Your task to perform on an android device: add a contact Image 0: 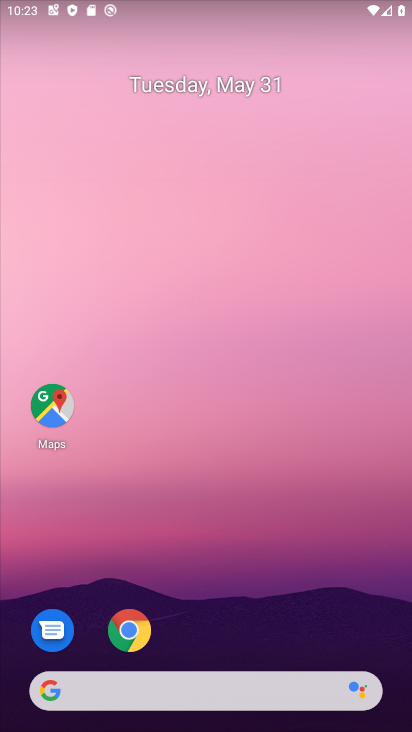
Step 0: press home button
Your task to perform on an android device: add a contact Image 1: 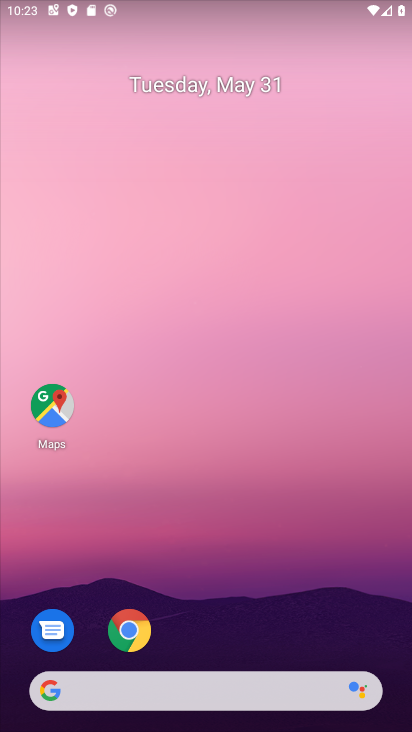
Step 1: drag from (268, 560) to (268, 135)
Your task to perform on an android device: add a contact Image 2: 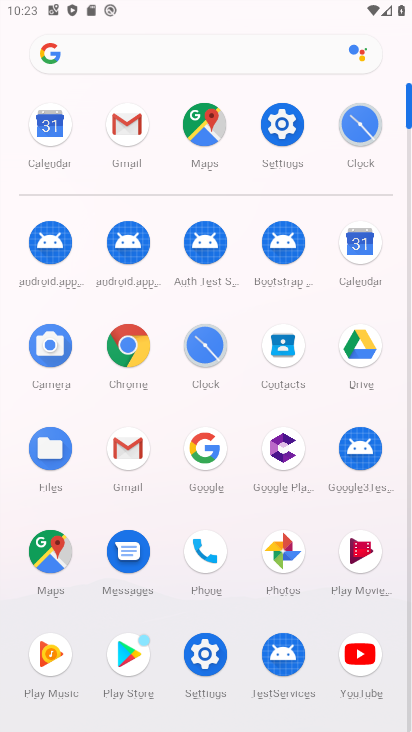
Step 2: click (285, 337)
Your task to perform on an android device: add a contact Image 3: 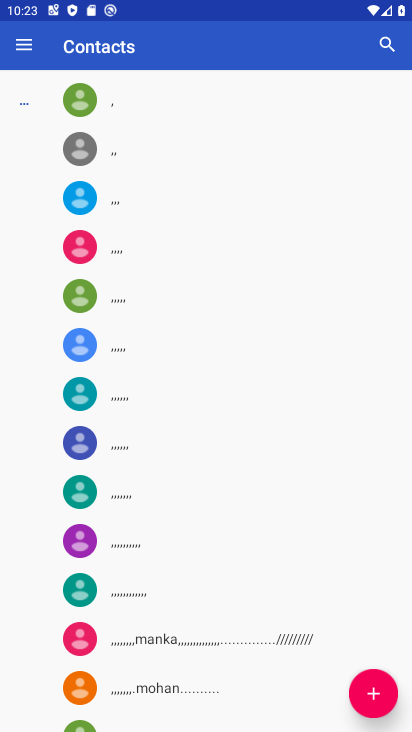
Step 3: click (371, 702)
Your task to perform on an android device: add a contact Image 4: 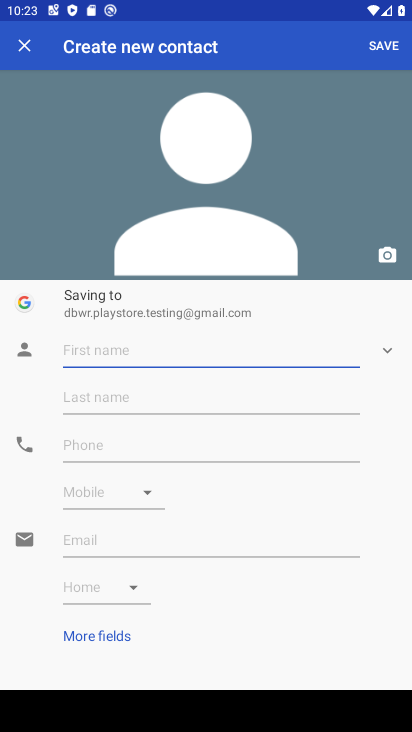
Step 4: click (148, 352)
Your task to perform on an android device: add a contact Image 5: 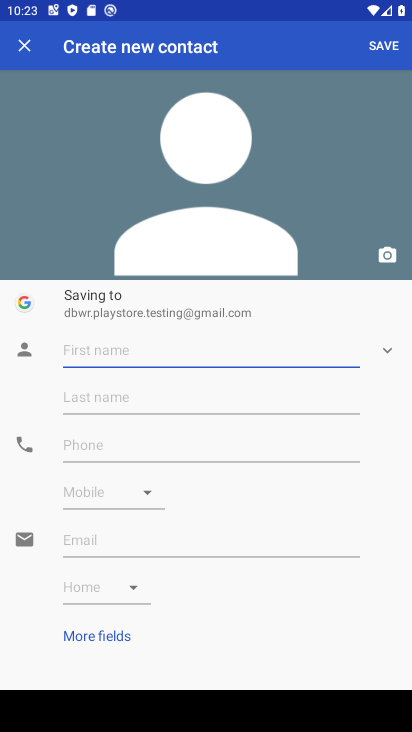
Step 5: click (138, 346)
Your task to perform on an android device: add a contact Image 6: 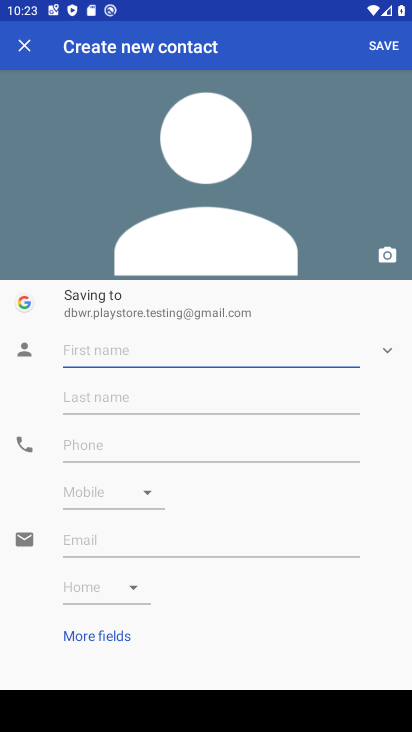
Step 6: type "vbcgccbv"
Your task to perform on an android device: add a contact Image 7: 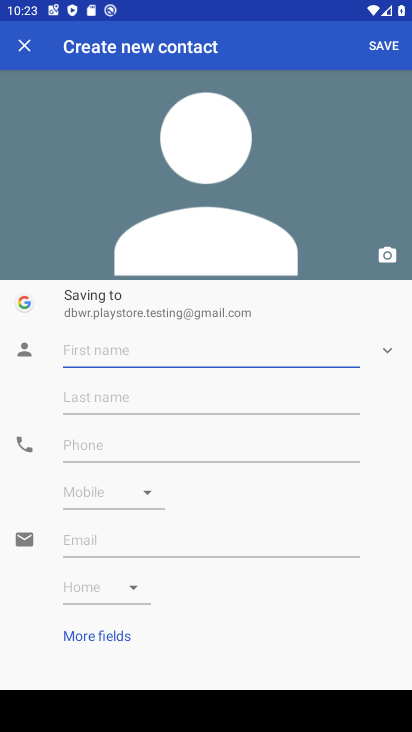
Step 7: click (194, 350)
Your task to perform on an android device: add a contact Image 8: 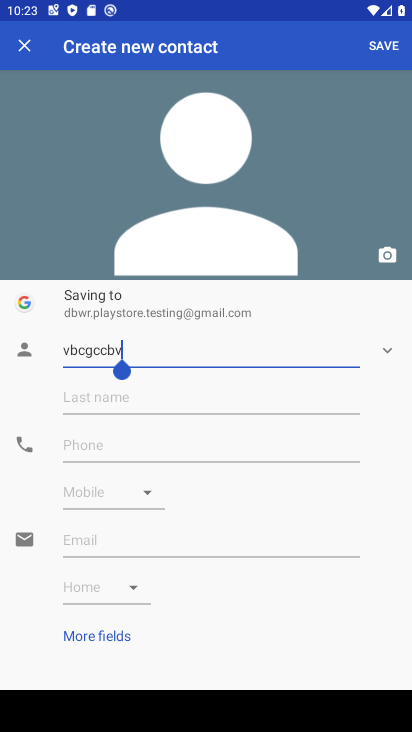
Step 8: click (110, 446)
Your task to perform on an android device: add a contact Image 9: 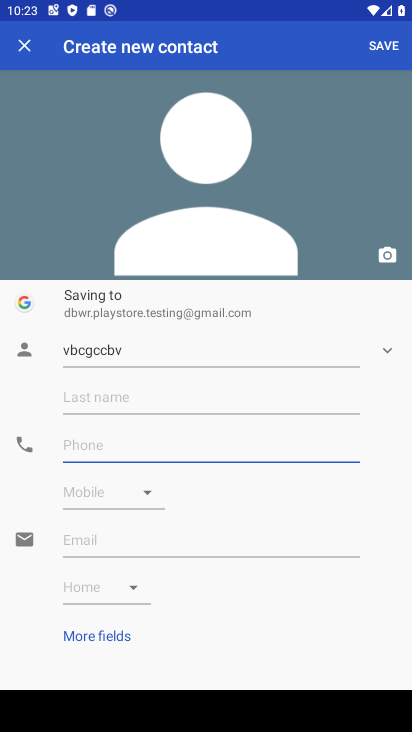
Step 9: type "665543333"
Your task to perform on an android device: add a contact Image 10: 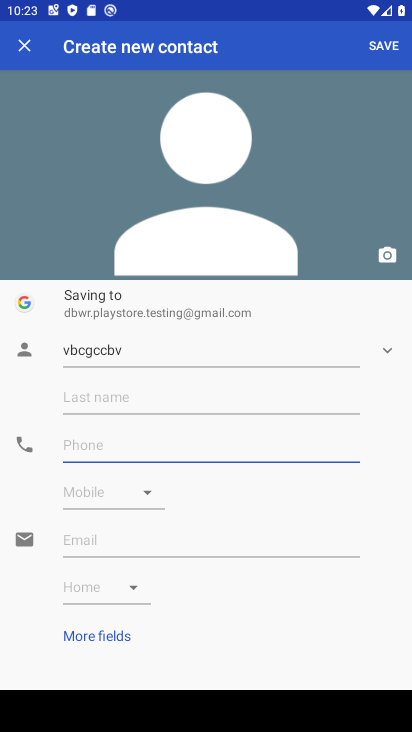
Step 10: click (237, 448)
Your task to perform on an android device: add a contact Image 11: 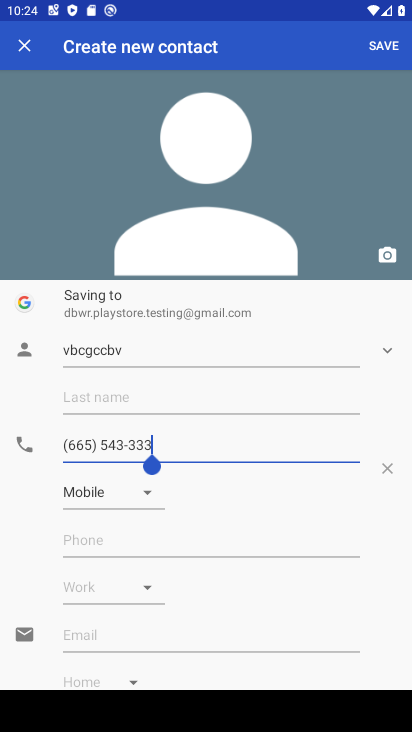
Step 11: click (388, 41)
Your task to perform on an android device: add a contact Image 12: 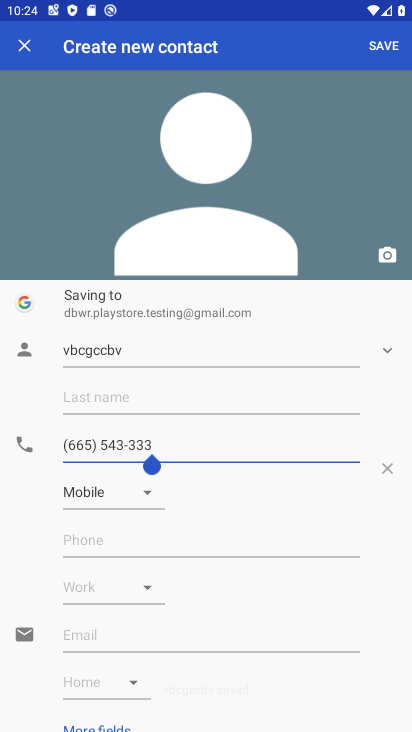
Step 12: task complete